Your task to perform on an android device: Go to wifi settings Image 0: 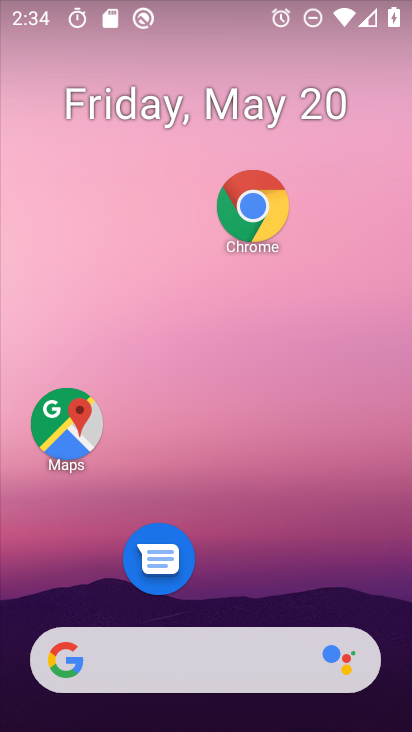
Step 0: drag from (253, 626) to (337, 16)
Your task to perform on an android device: Go to wifi settings Image 1: 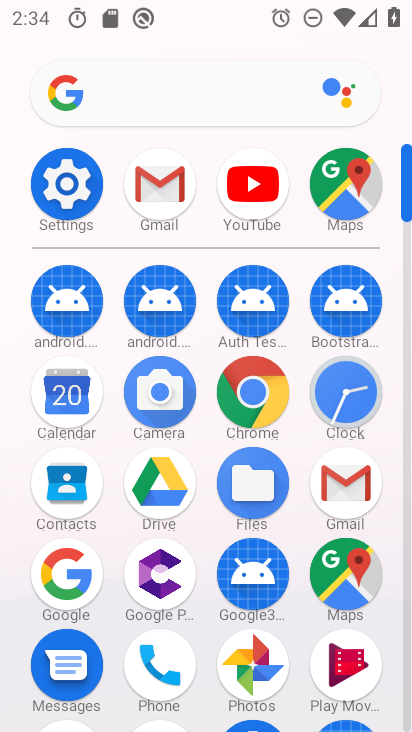
Step 1: click (55, 188)
Your task to perform on an android device: Go to wifi settings Image 2: 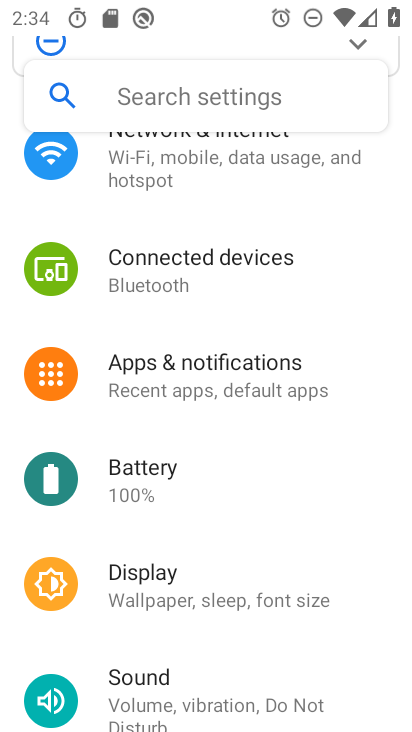
Step 2: drag from (146, 220) to (163, 441)
Your task to perform on an android device: Go to wifi settings Image 3: 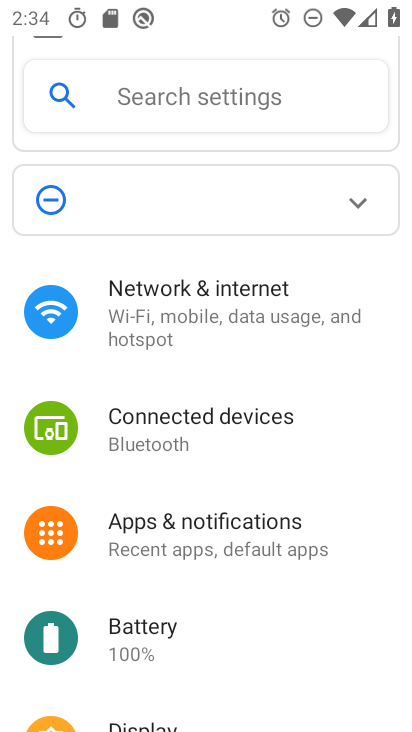
Step 3: click (154, 301)
Your task to perform on an android device: Go to wifi settings Image 4: 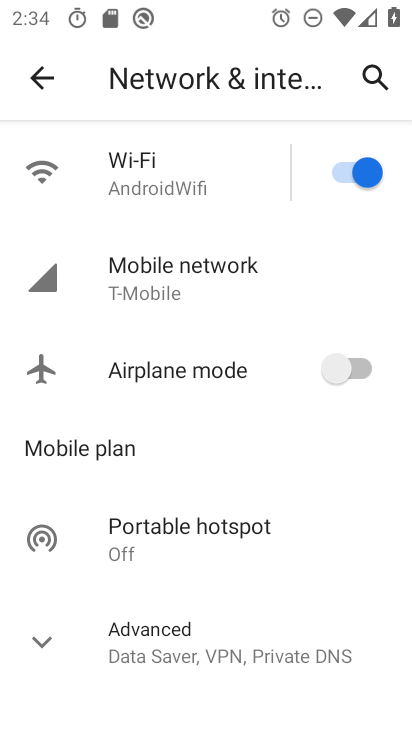
Step 4: click (166, 171)
Your task to perform on an android device: Go to wifi settings Image 5: 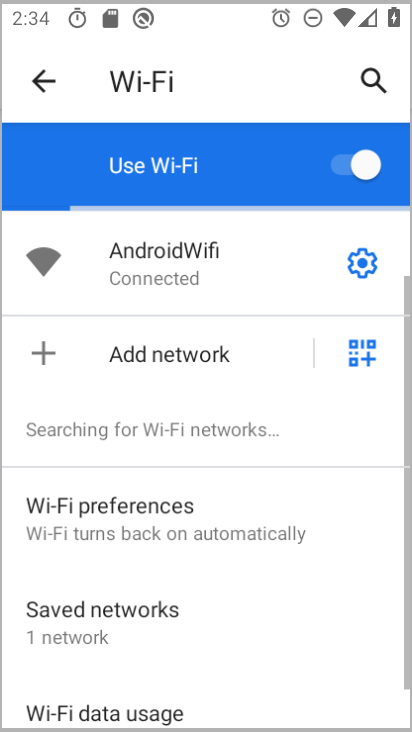
Step 5: task complete